Your task to perform on an android device: open chrome and create a bookmark for the current page Image 0: 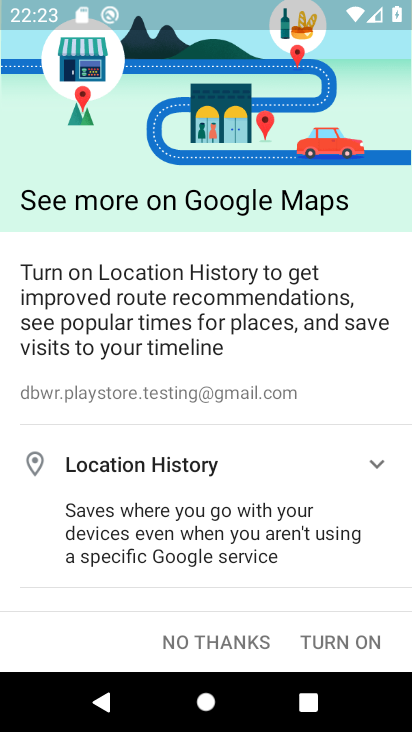
Step 0: press home button
Your task to perform on an android device: open chrome and create a bookmark for the current page Image 1: 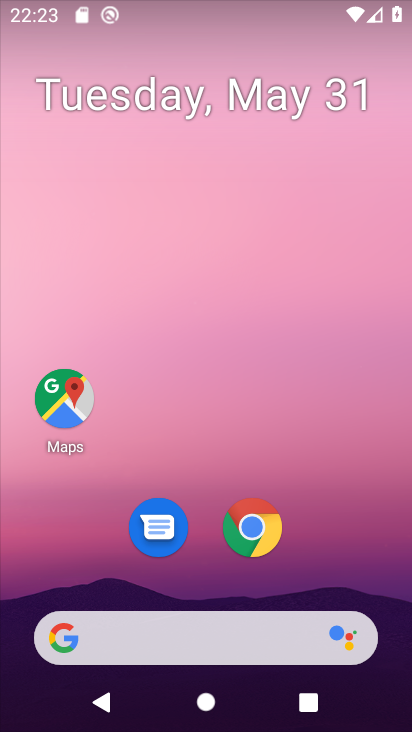
Step 1: click (258, 525)
Your task to perform on an android device: open chrome and create a bookmark for the current page Image 2: 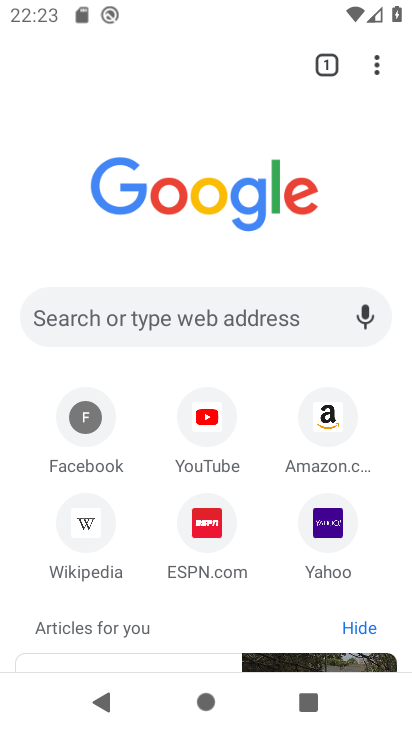
Step 2: click (380, 66)
Your task to perform on an android device: open chrome and create a bookmark for the current page Image 3: 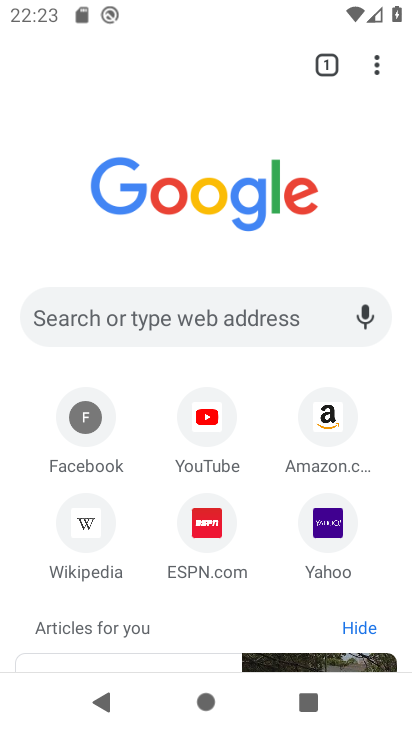
Step 3: click (373, 59)
Your task to perform on an android device: open chrome and create a bookmark for the current page Image 4: 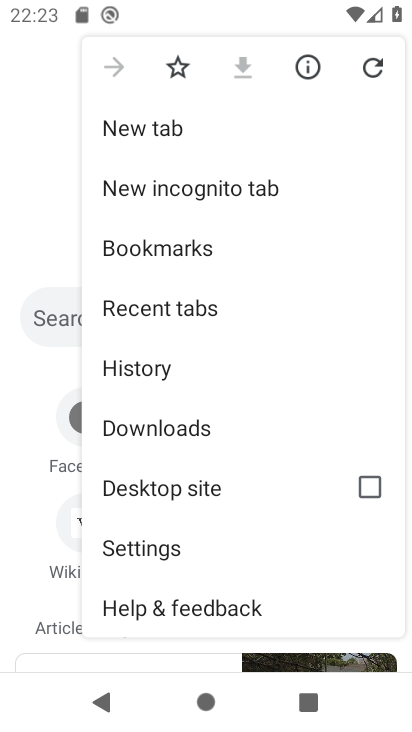
Step 4: click (169, 74)
Your task to perform on an android device: open chrome and create a bookmark for the current page Image 5: 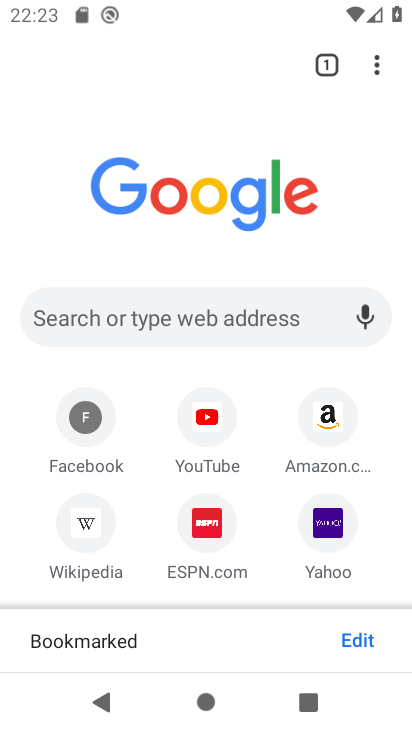
Step 5: task complete